Your task to perform on an android device: toggle notifications settings in the gmail app Image 0: 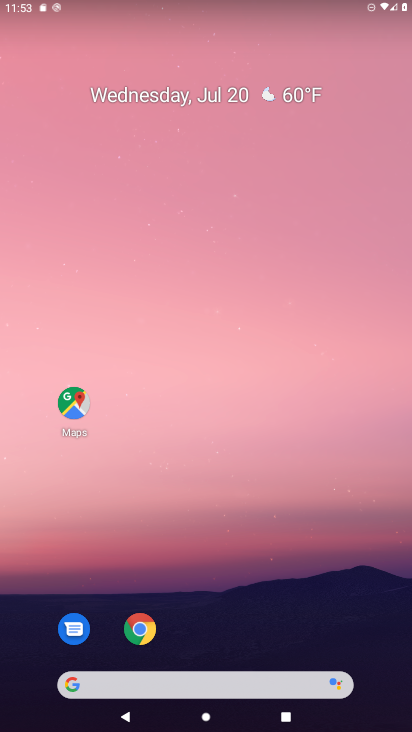
Step 0: drag from (221, 605) to (189, 18)
Your task to perform on an android device: toggle notifications settings in the gmail app Image 1: 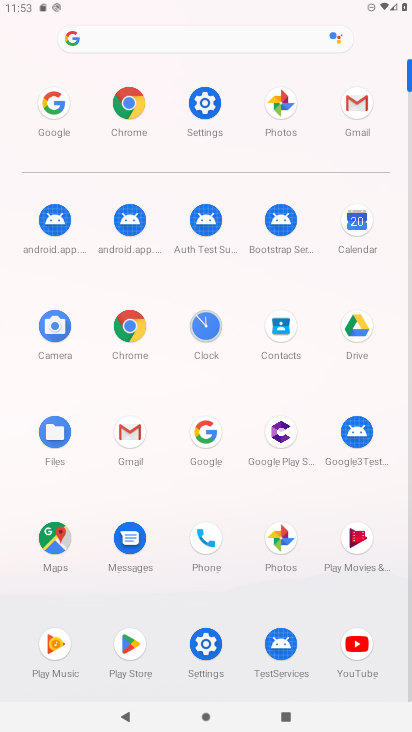
Step 1: click (354, 116)
Your task to perform on an android device: toggle notifications settings in the gmail app Image 2: 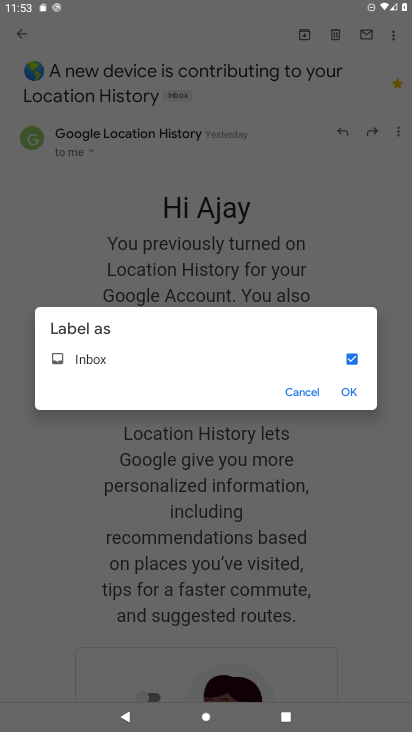
Step 2: click (340, 394)
Your task to perform on an android device: toggle notifications settings in the gmail app Image 3: 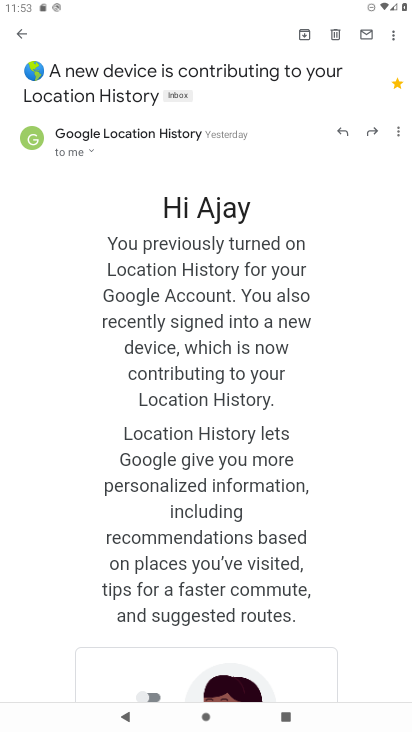
Step 3: click (19, 38)
Your task to perform on an android device: toggle notifications settings in the gmail app Image 4: 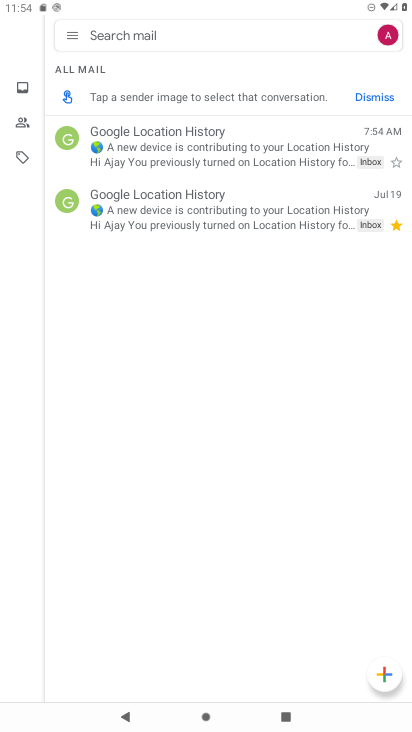
Step 4: click (66, 32)
Your task to perform on an android device: toggle notifications settings in the gmail app Image 5: 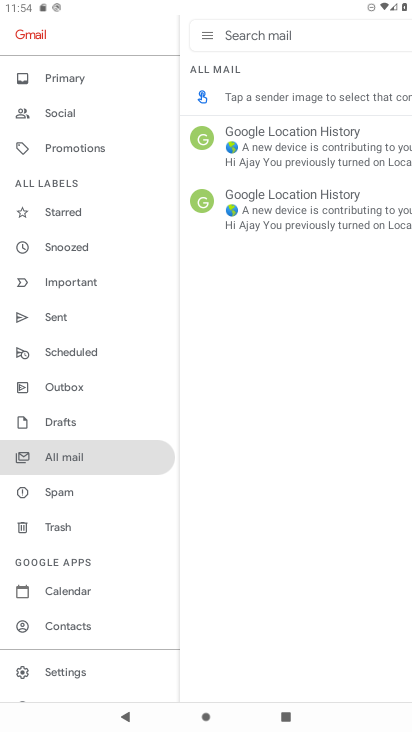
Step 5: click (79, 676)
Your task to perform on an android device: toggle notifications settings in the gmail app Image 6: 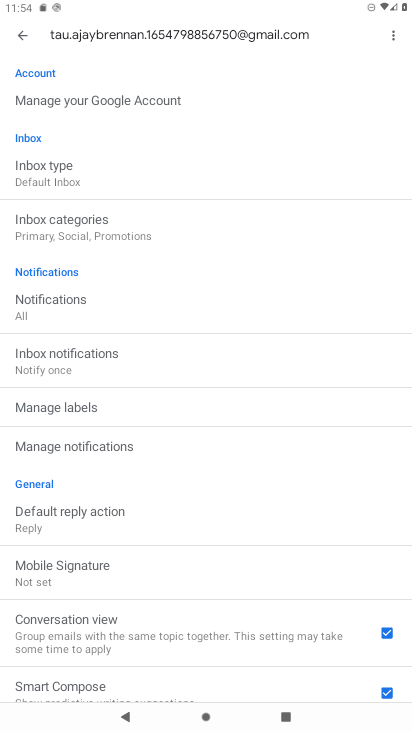
Step 6: click (98, 449)
Your task to perform on an android device: toggle notifications settings in the gmail app Image 7: 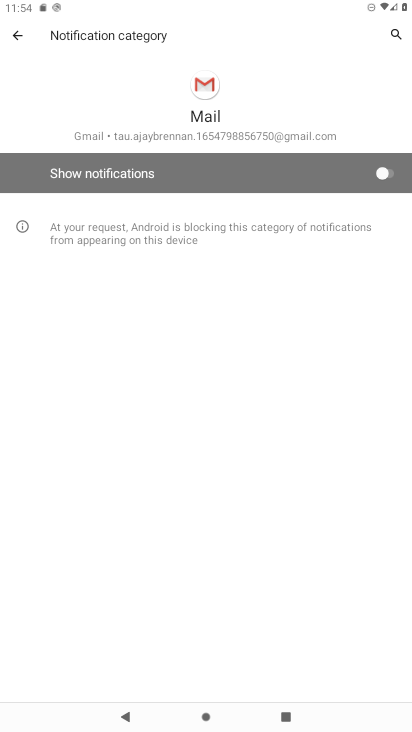
Step 7: click (381, 175)
Your task to perform on an android device: toggle notifications settings in the gmail app Image 8: 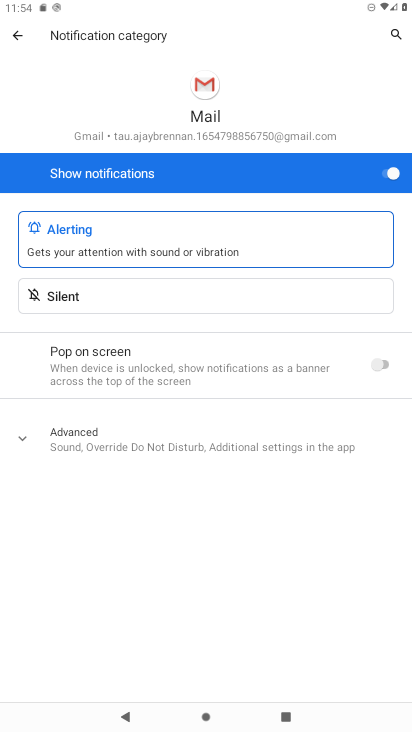
Step 8: task complete